Your task to perform on an android device: Show the shopping cart on ebay.com. Search for razer huntsman on ebay.com, select the first entry, and add it to the cart. Image 0: 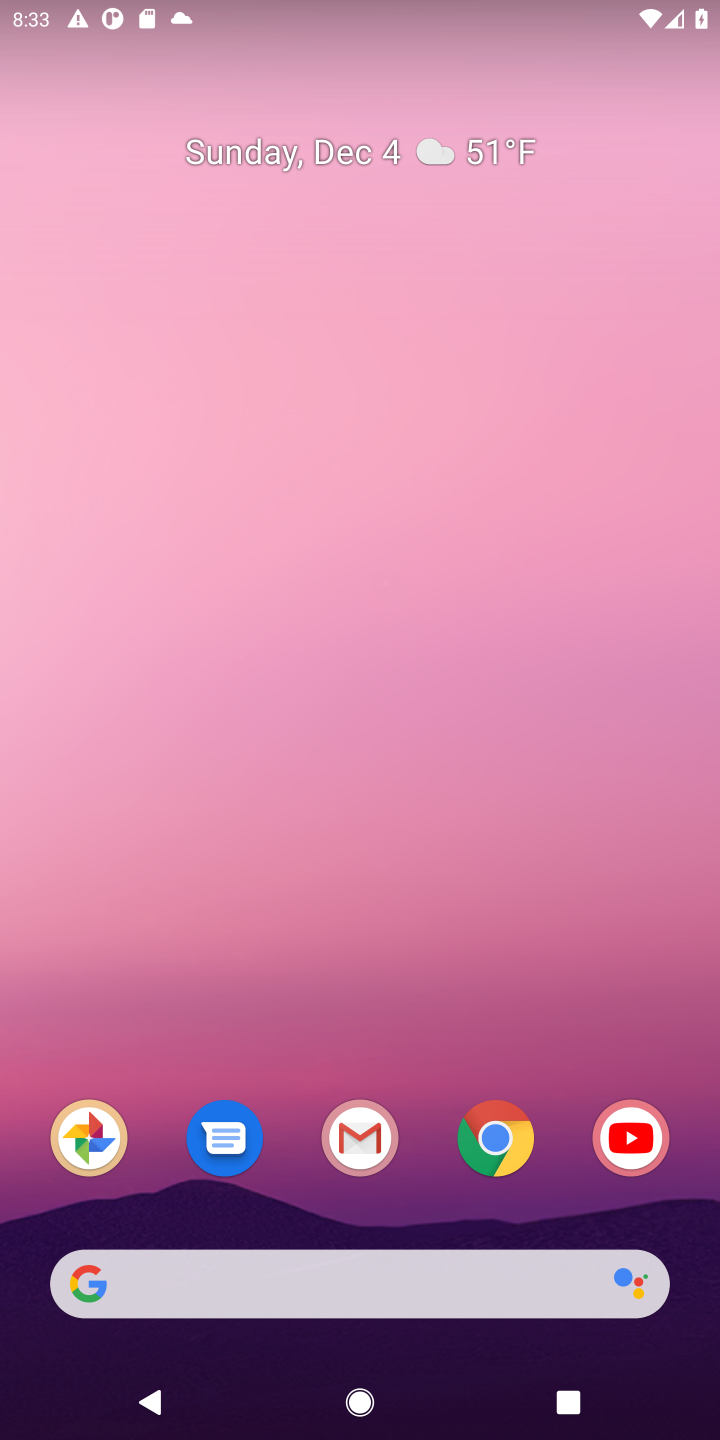
Step 0: click (501, 1140)
Your task to perform on an android device: Show the shopping cart on ebay.com. Search for razer huntsman on ebay.com, select the first entry, and add it to the cart. Image 1: 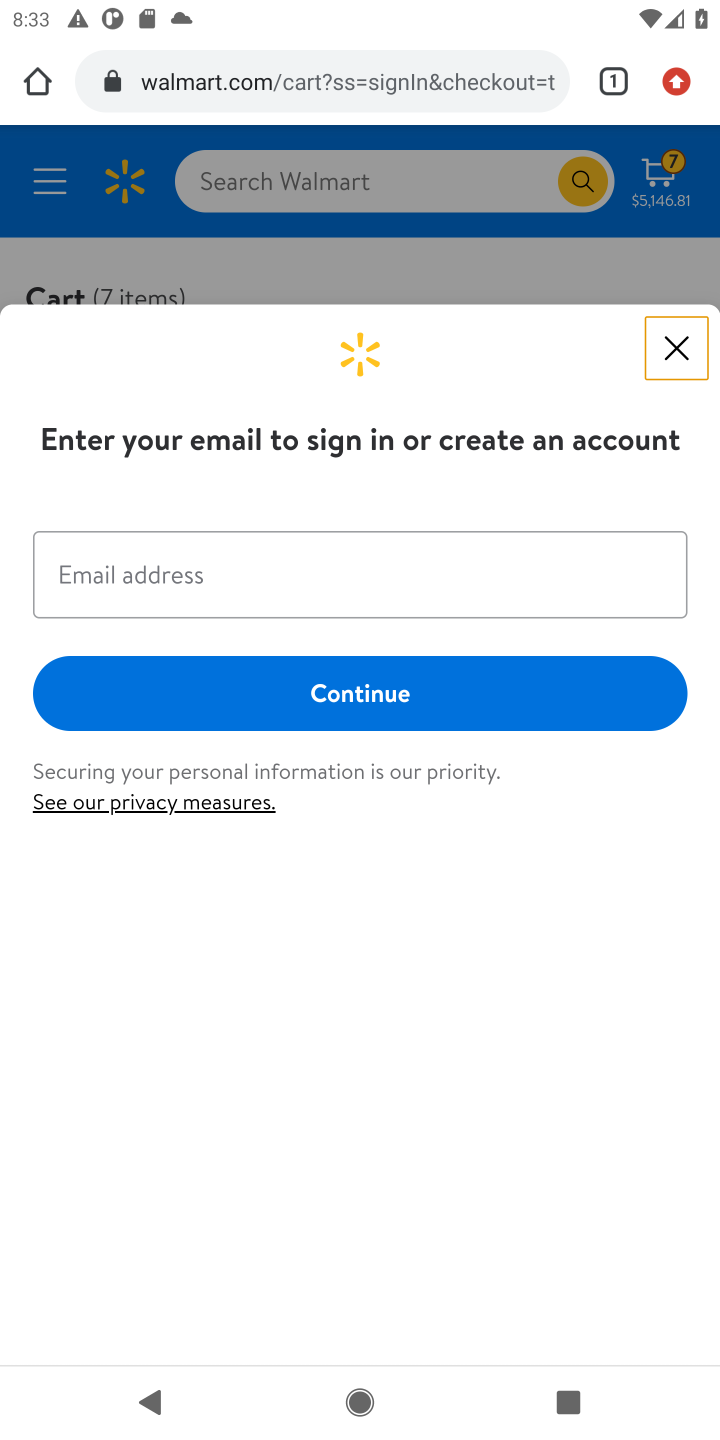
Step 1: click (420, 82)
Your task to perform on an android device: Show the shopping cart on ebay.com. Search for razer huntsman on ebay.com, select the first entry, and add it to the cart. Image 2: 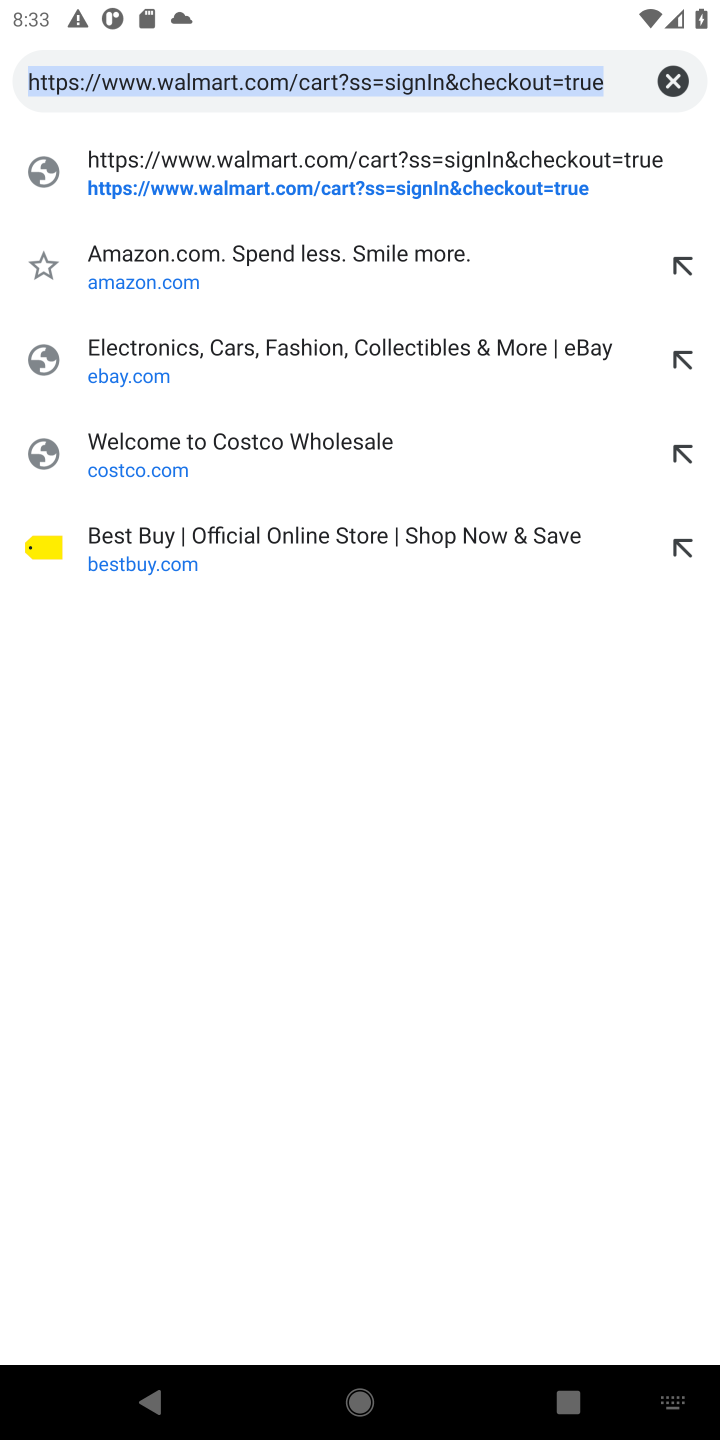
Step 2: type "ebay.com"
Your task to perform on an android device: Show the shopping cart on ebay.com. Search for razer huntsman on ebay.com, select the first entry, and add it to the cart. Image 3: 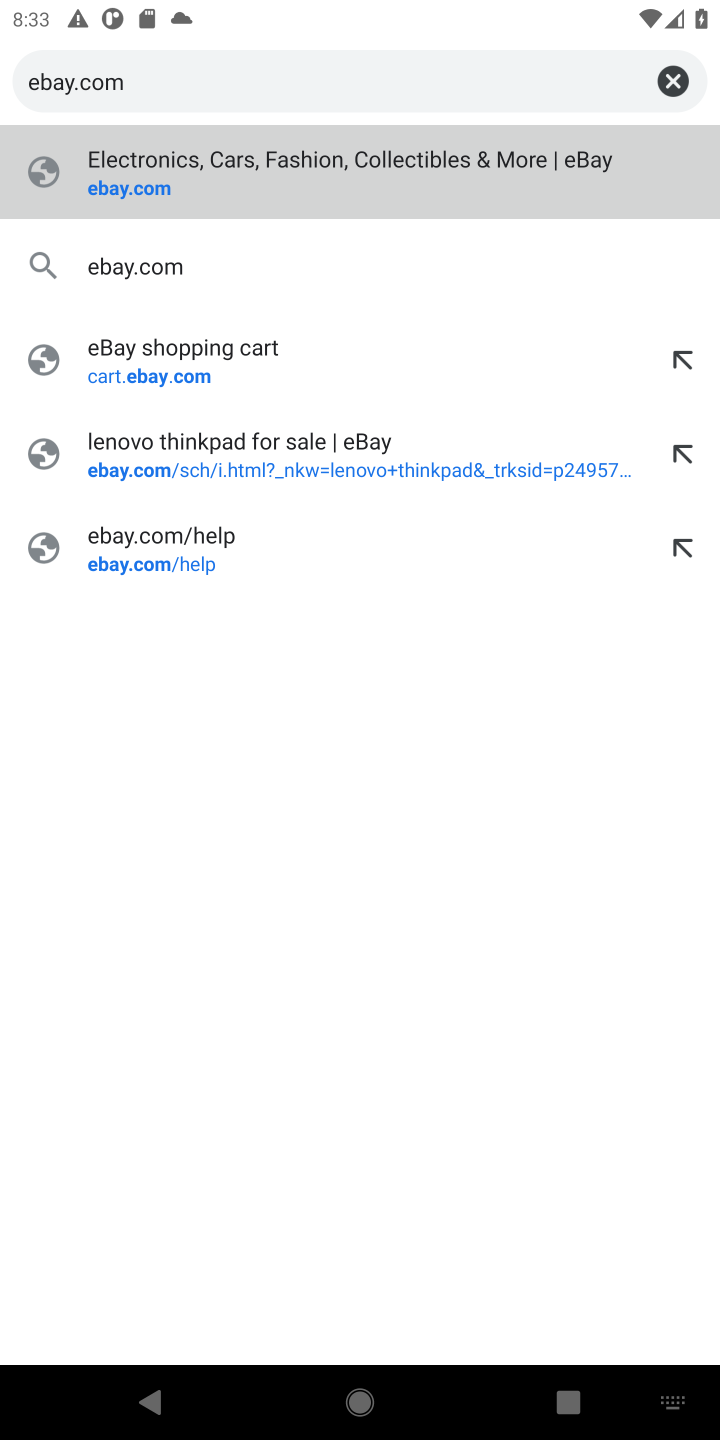
Step 3: press enter
Your task to perform on an android device: Show the shopping cart on ebay.com. Search for razer huntsman on ebay.com, select the first entry, and add it to the cart. Image 4: 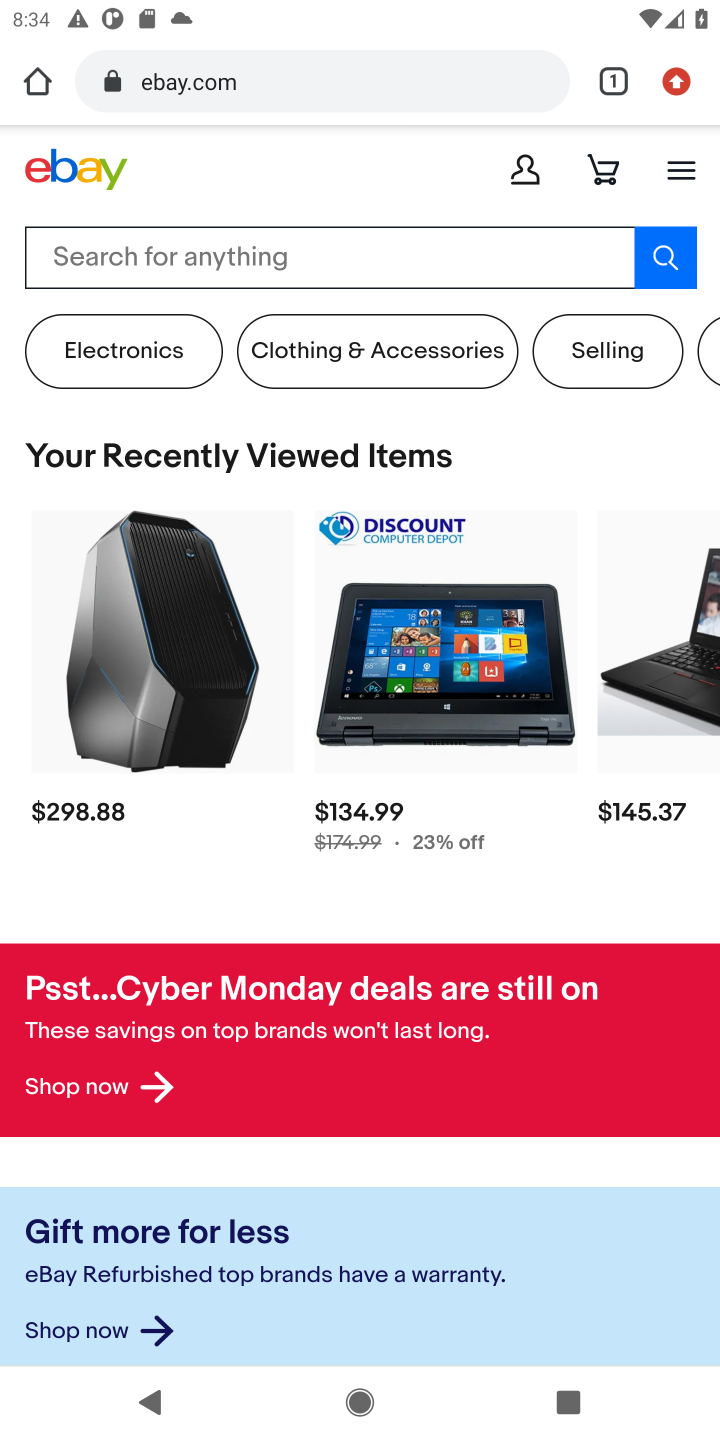
Step 4: click (346, 244)
Your task to perform on an android device: Show the shopping cart on ebay.com. Search for razer huntsman on ebay.com, select the first entry, and add it to the cart. Image 5: 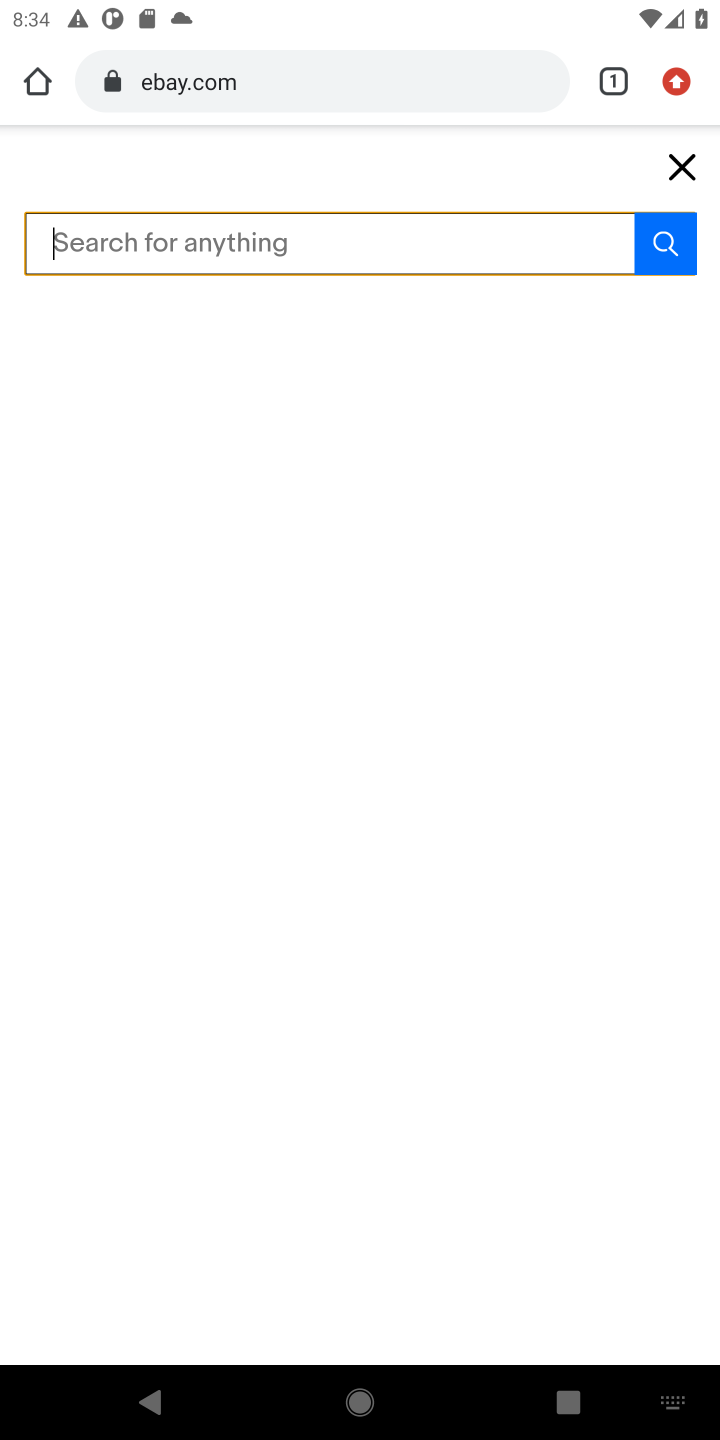
Step 5: type "razer huntsman"
Your task to perform on an android device: Show the shopping cart on ebay.com. Search for razer huntsman on ebay.com, select the first entry, and add it to the cart. Image 6: 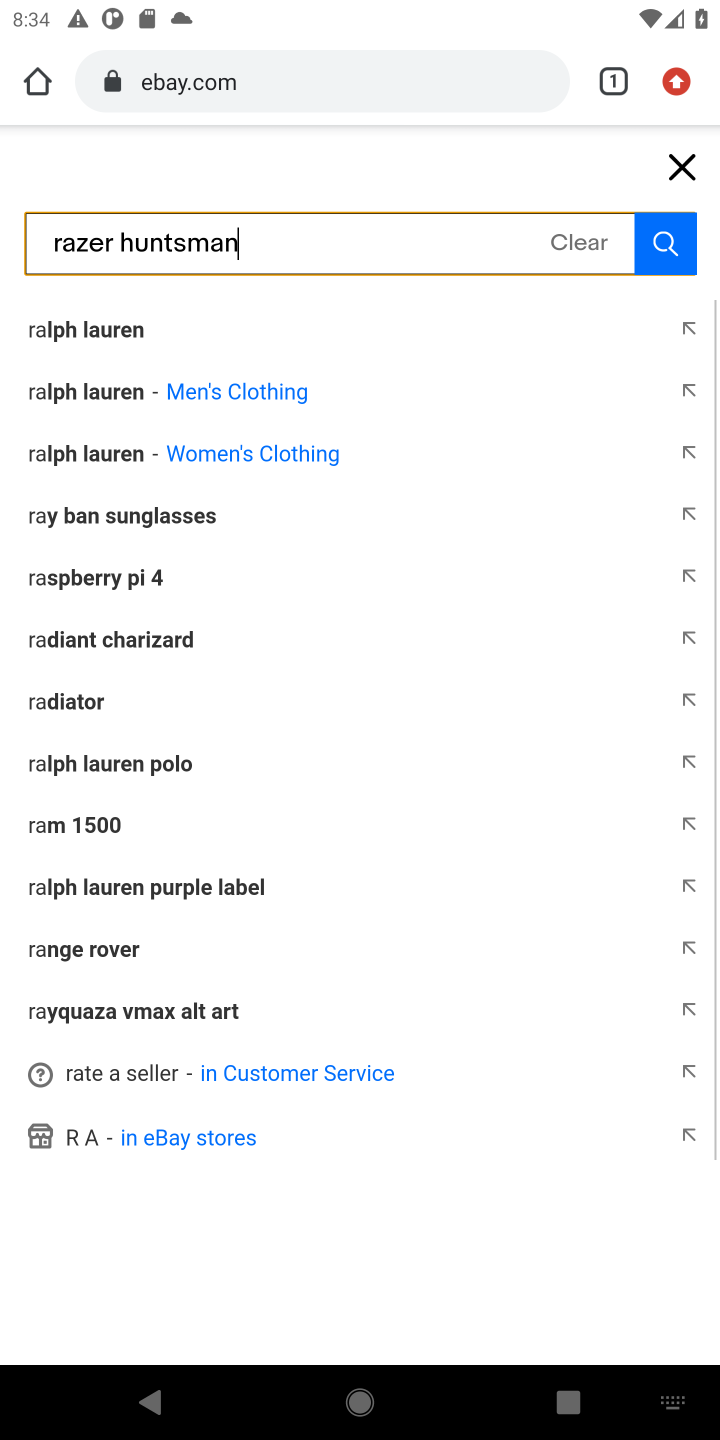
Step 6: press enter
Your task to perform on an android device: Show the shopping cart on ebay.com. Search for razer huntsman on ebay.com, select the first entry, and add it to the cart. Image 7: 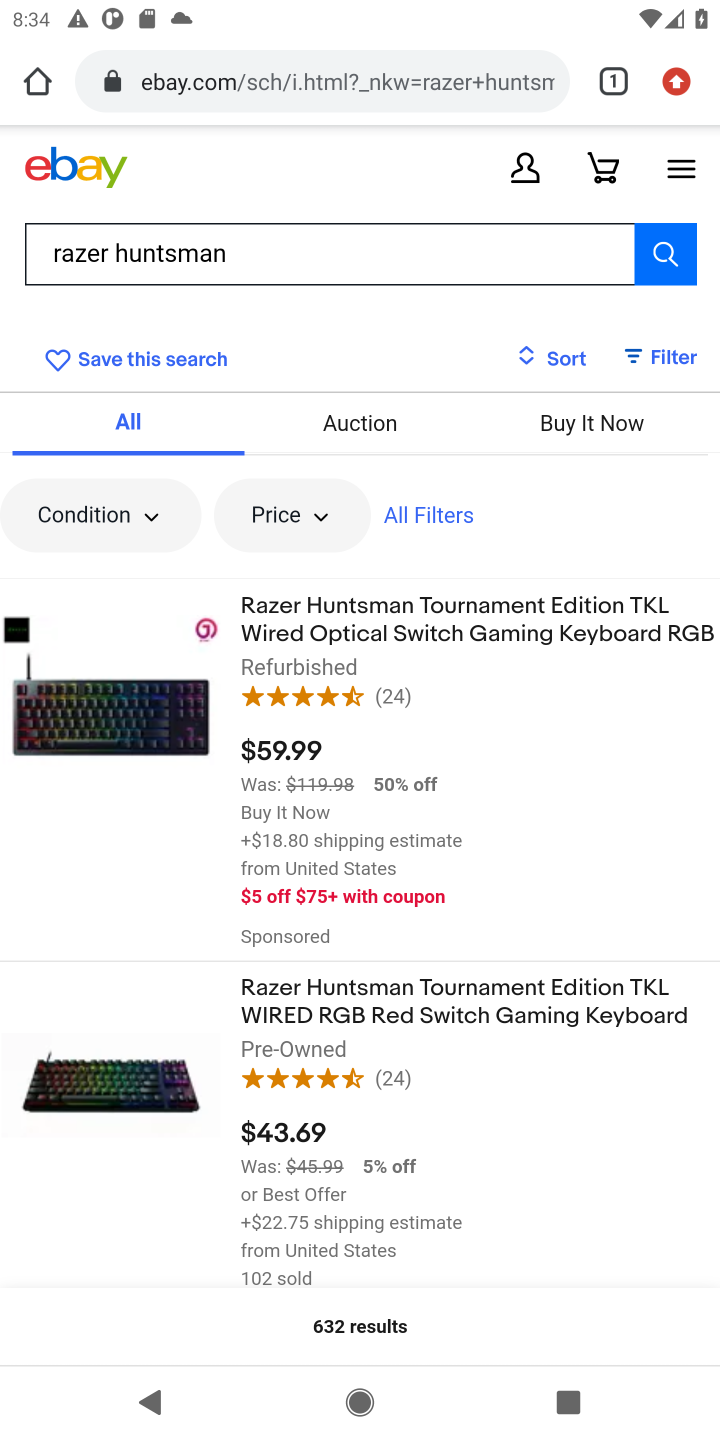
Step 7: click (120, 711)
Your task to perform on an android device: Show the shopping cart on ebay.com. Search for razer huntsman on ebay.com, select the first entry, and add it to the cart. Image 8: 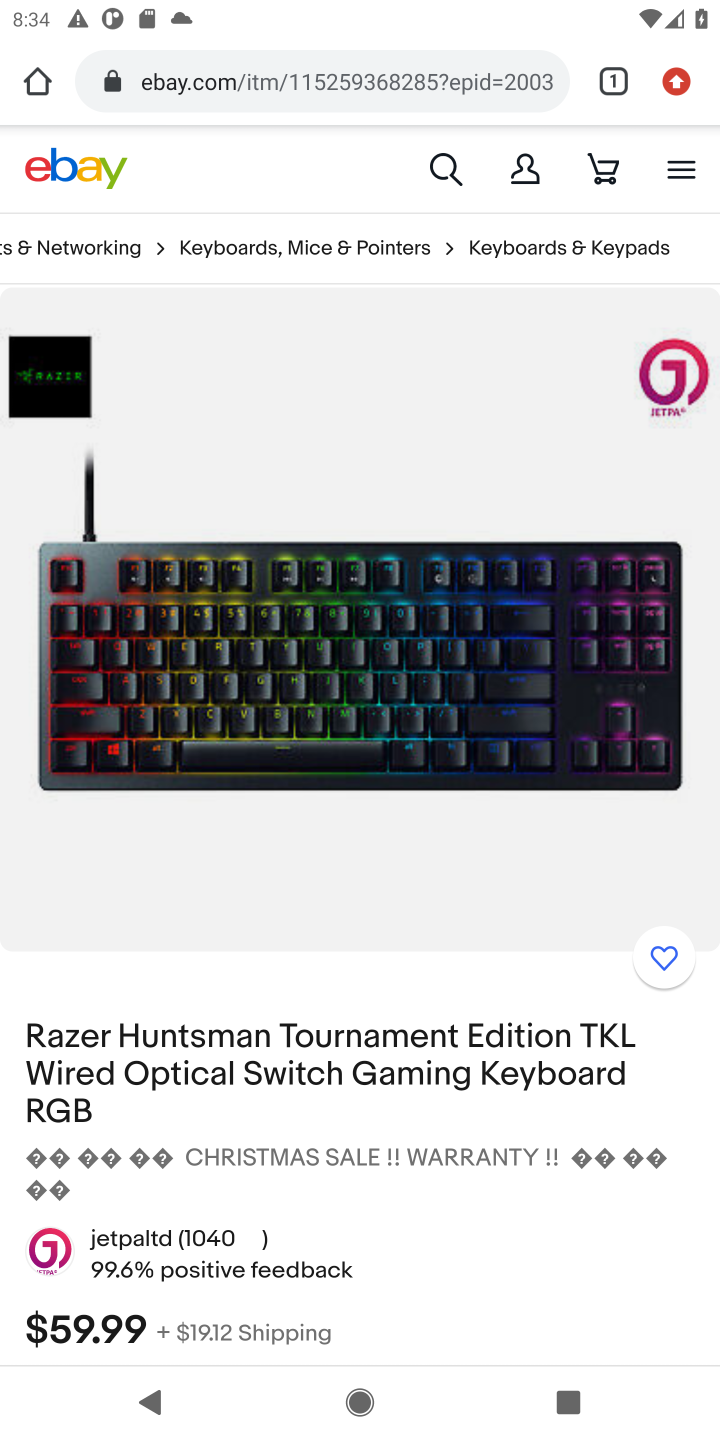
Step 8: drag from (462, 1121) to (493, 416)
Your task to perform on an android device: Show the shopping cart on ebay.com. Search for razer huntsman on ebay.com, select the first entry, and add it to the cart. Image 9: 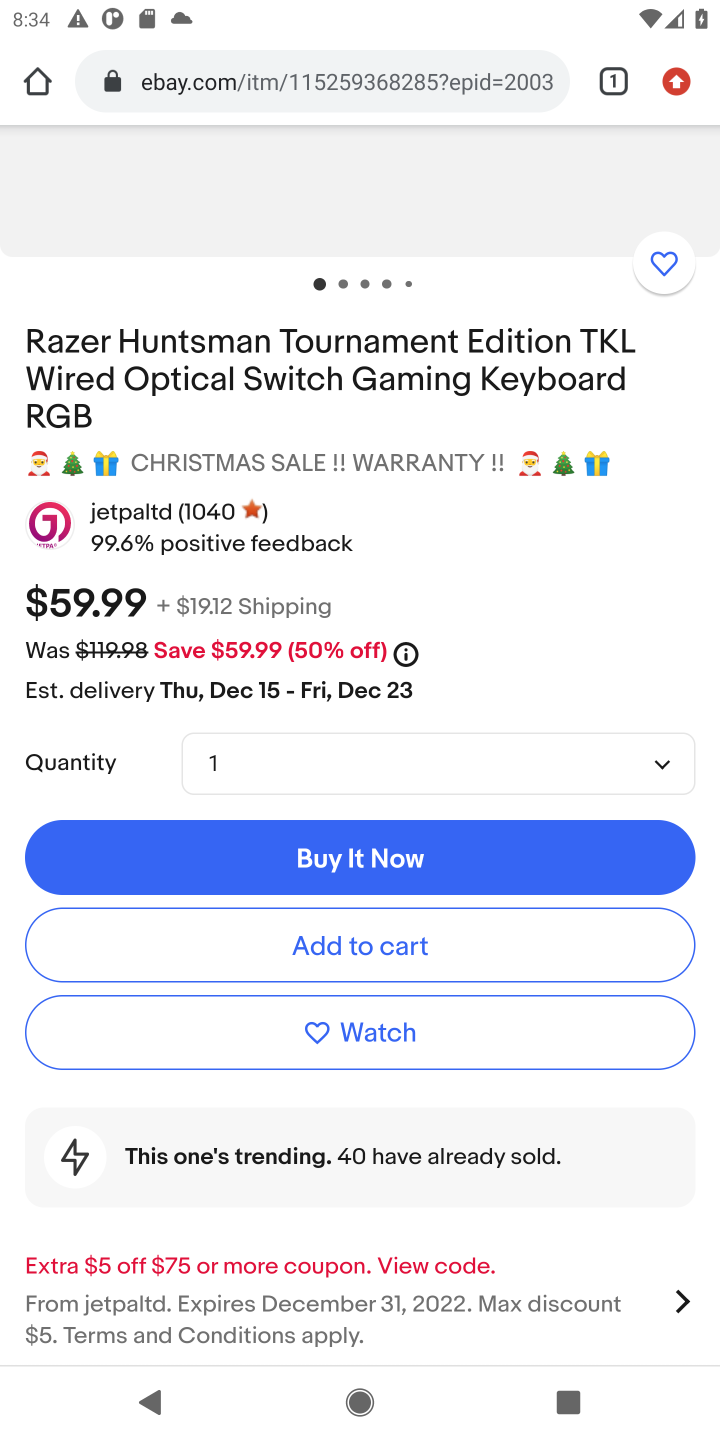
Step 9: click (372, 938)
Your task to perform on an android device: Show the shopping cart on ebay.com. Search for razer huntsman on ebay.com, select the first entry, and add it to the cart. Image 10: 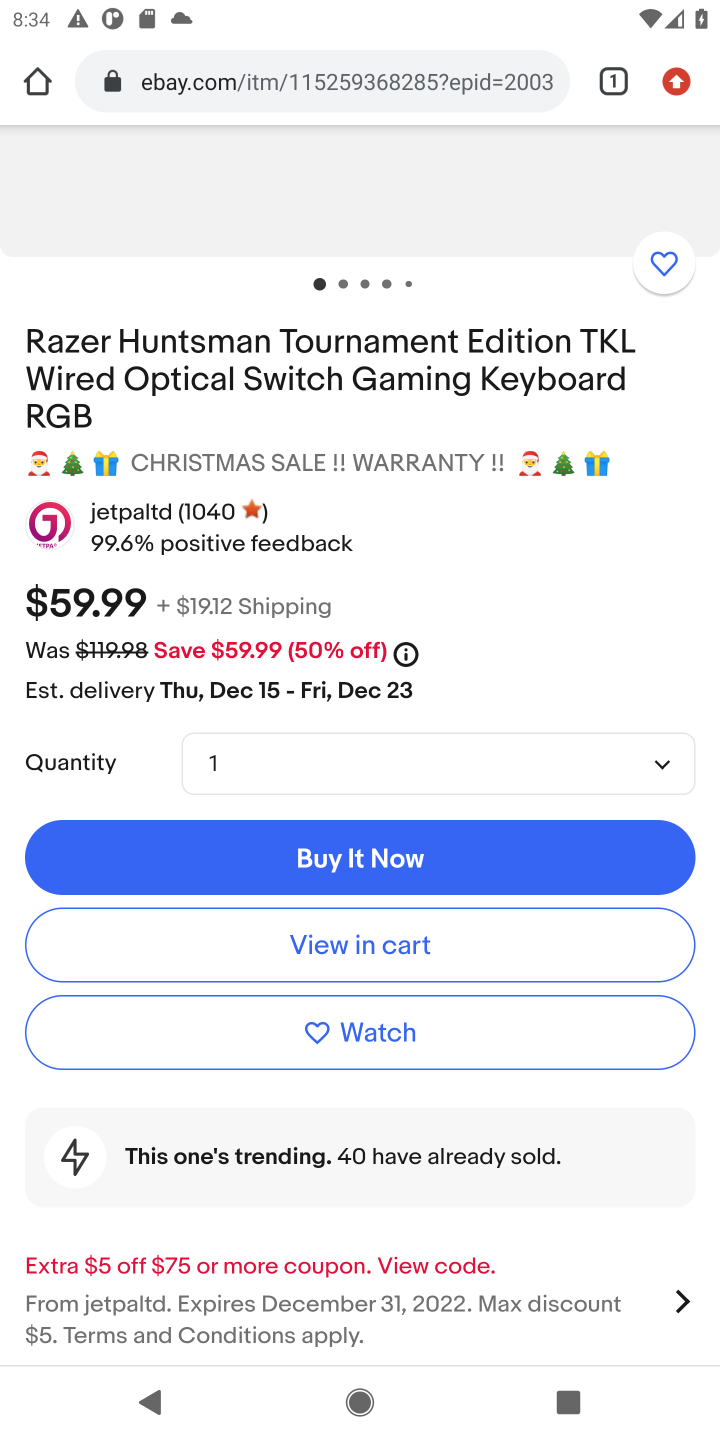
Step 10: click (372, 938)
Your task to perform on an android device: Show the shopping cart on ebay.com. Search for razer huntsman on ebay.com, select the first entry, and add it to the cart. Image 11: 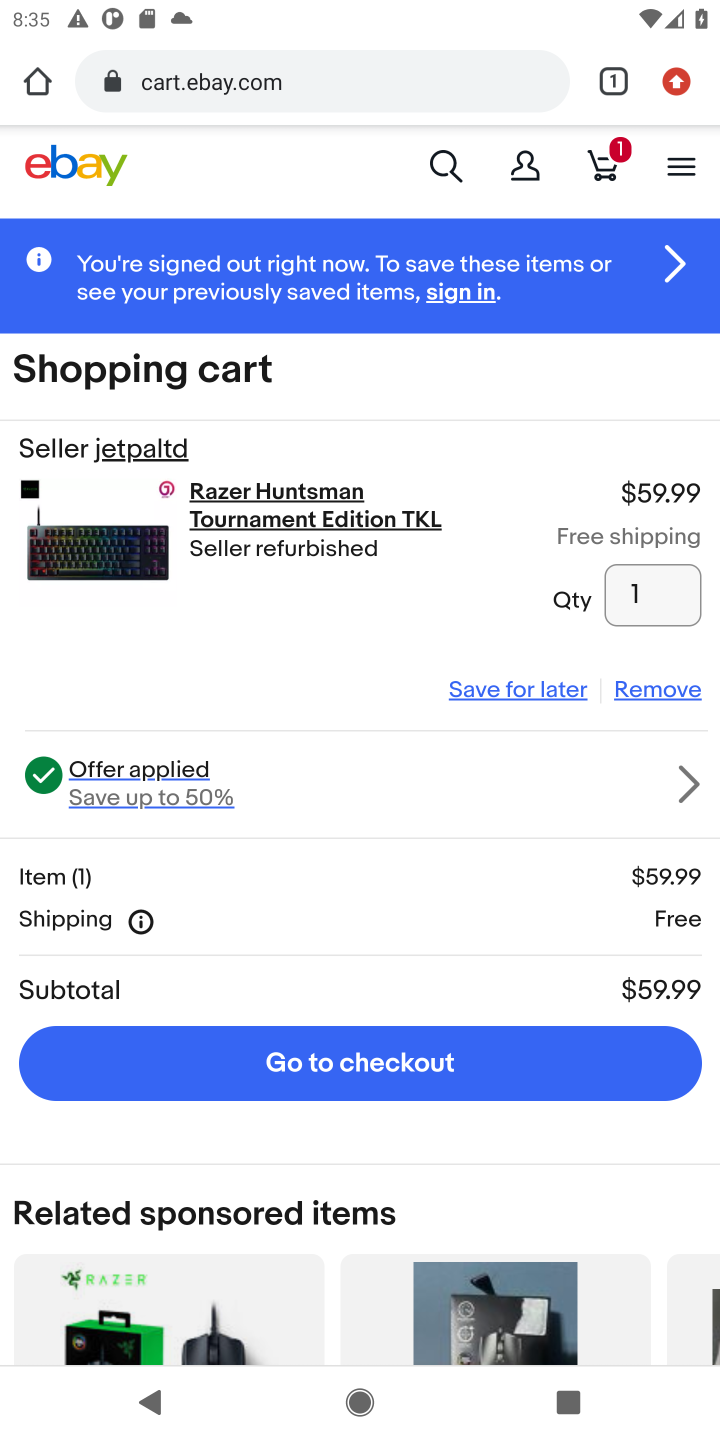
Step 11: task complete